Your task to perform on an android device: Empty the shopping cart on ebay. Add usb-a to usb-b to the cart on ebay, then select checkout. Image 0: 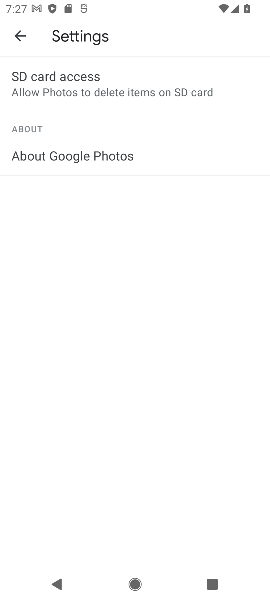
Step 0: press home button
Your task to perform on an android device: Empty the shopping cart on ebay. Add usb-a to usb-b to the cart on ebay, then select checkout. Image 1: 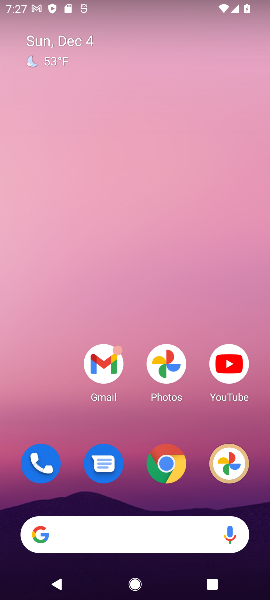
Step 1: click (158, 549)
Your task to perform on an android device: Empty the shopping cart on ebay. Add usb-a to usb-b to the cart on ebay, then select checkout. Image 2: 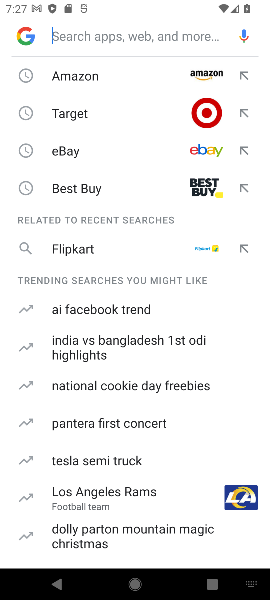
Step 2: click (130, 157)
Your task to perform on an android device: Empty the shopping cart on ebay. Add usb-a to usb-b to the cart on ebay, then select checkout. Image 3: 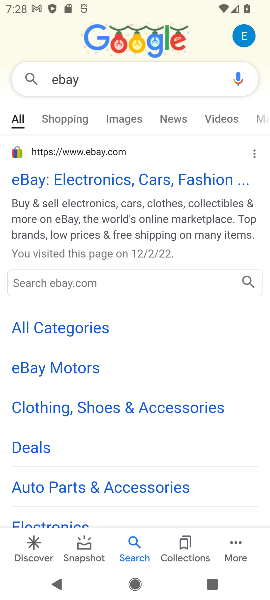
Step 3: click (38, 191)
Your task to perform on an android device: Empty the shopping cart on ebay. Add usb-a to usb-b to the cart on ebay, then select checkout. Image 4: 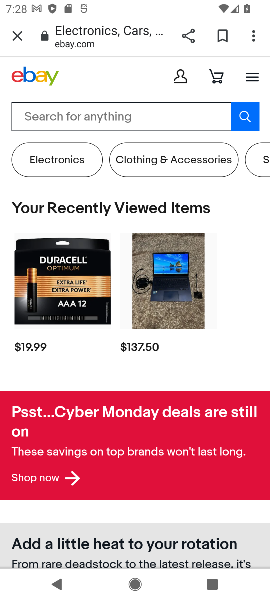
Step 4: click (100, 117)
Your task to perform on an android device: Empty the shopping cart on ebay. Add usb-a to usb-b to the cart on ebay, then select checkout. Image 5: 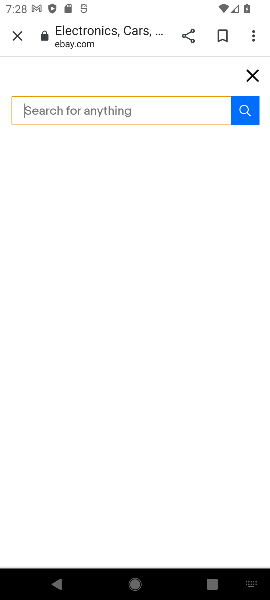
Step 5: type "usb-a to usb-b"
Your task to perform on an android device: Empty the shopping cart on ebay. Add usb-a to usb-b to the cart on ebay, then select checkout. Image 6: 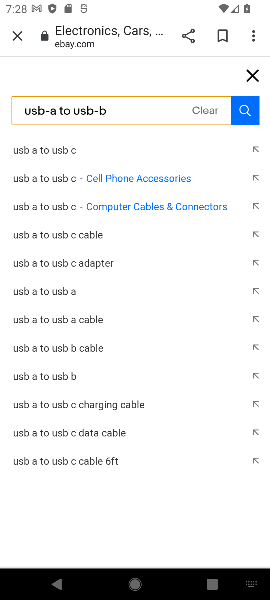
Step 6: click (252, 117)
Your task to perform on an android device: Empty the shopping cart on ebay. Add usb-a to usb-b to the cart on ebay, then select checkout. Image 7: 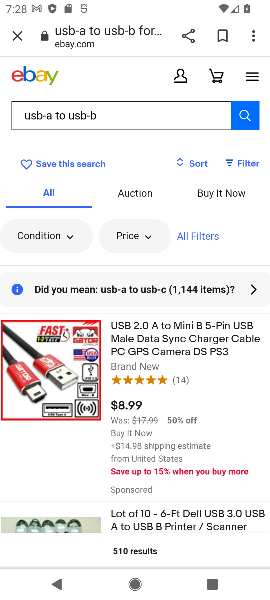
Step 7: click (174, 324)
Your task to perform on an android device: Empty the shopping cart on ebay. Add usb-a to usb-b to the cart on ebay, then select checkout. Image 8: 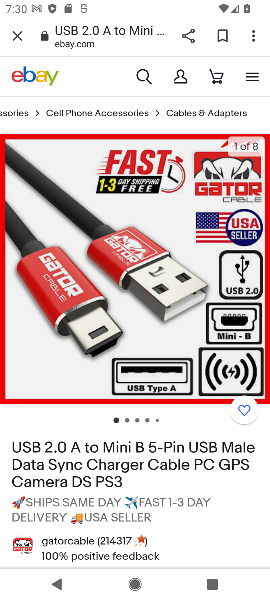
Step 8: task complete